Your task to perform on an android device: turn on bluetooth scan Image 0: 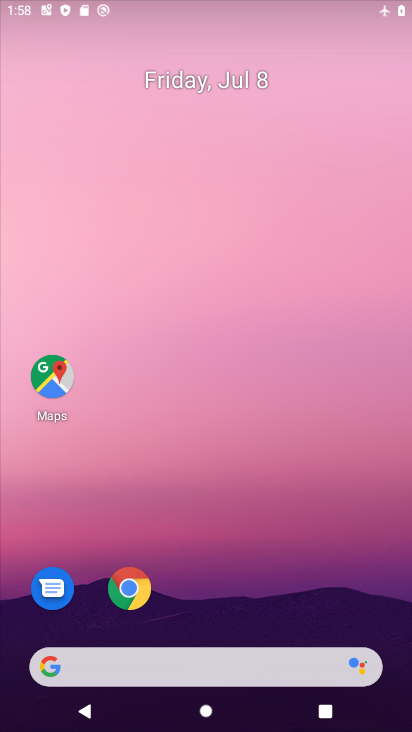
Step 0: press home button
Your task to perform on an android device: turn on bluetooth scan Image 1: 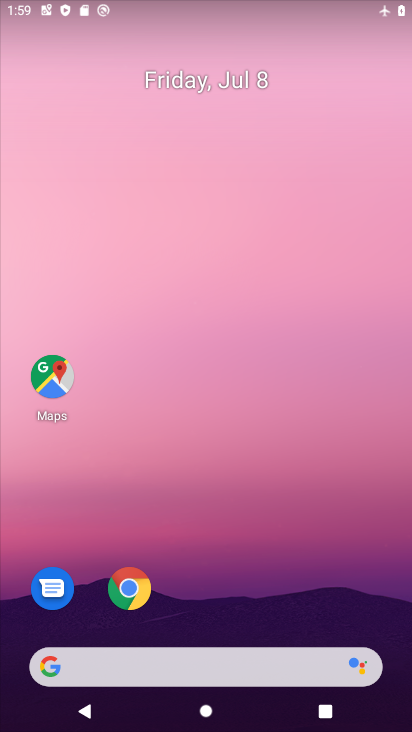
Step 1: drag from (210, 560) to (158, 55)
Your task to perform on an android device: turn on bluetooth scan Image 2: 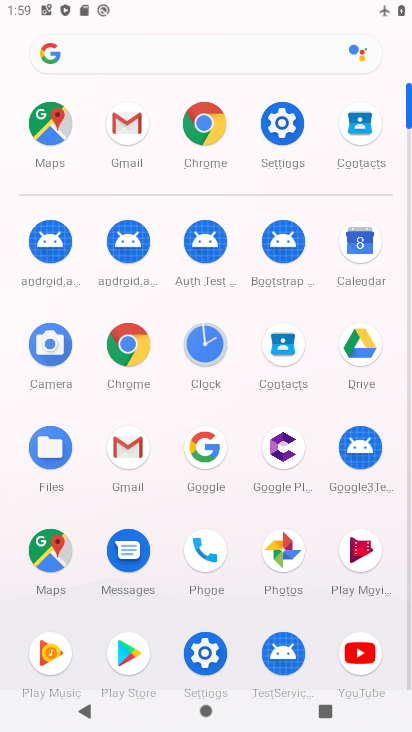
Step 2: click (282, 120)
Your task to perform on an android device: turn on bluetooth scan Image 3: 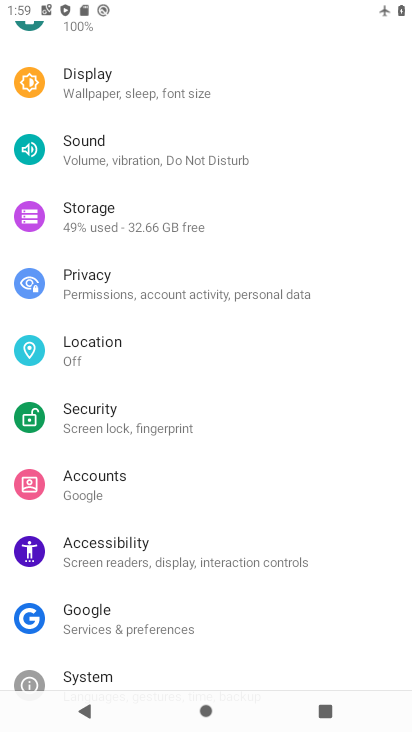
Step 3: click (81, 348)
Your task to perform on an android device: turn on bluetooth scan Image 4: 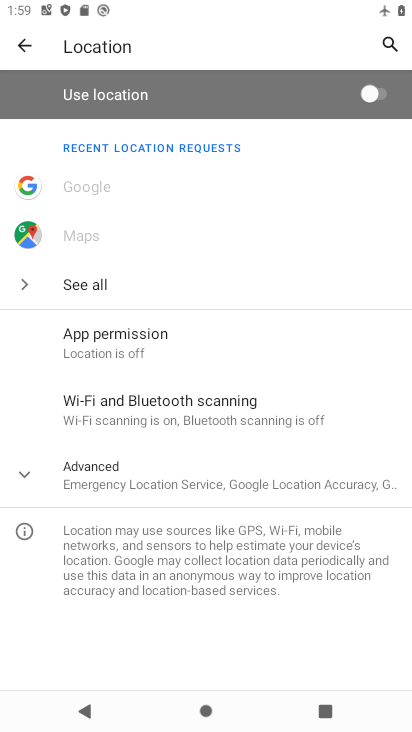
Step 4: click (146, 408)
Your task to perform on an android device: turn on bluetooth scan Image 5: 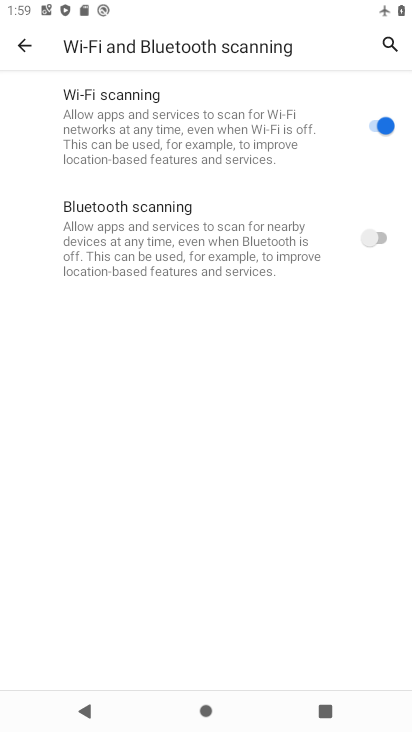
Step 5: click (377, 236)
Your task to perform on an android device: turn on bluetooth scan Image 6: 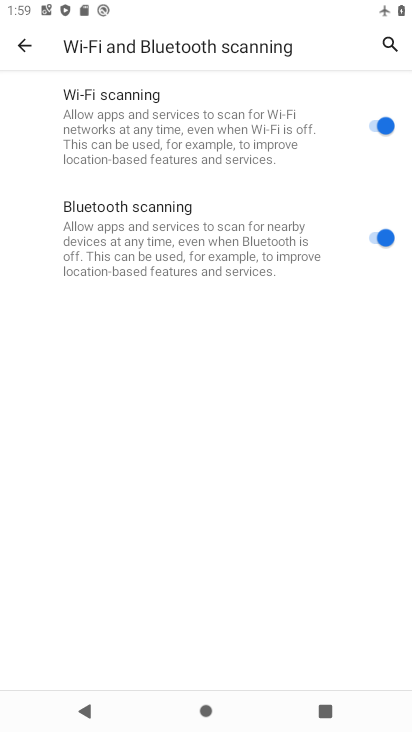
Step 6: task complete